Your task to perform on an android device: turn notification dots off Image 0: 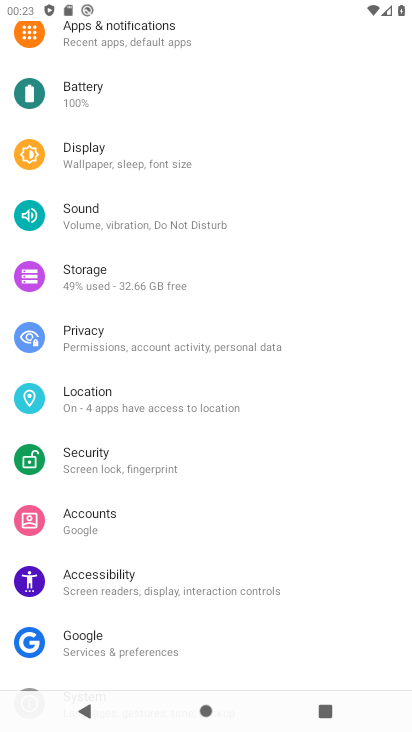
Step 0: drag from (208, 182) to (192, 586)
Your task to perform on an android device: turn notification dots off Image 1: 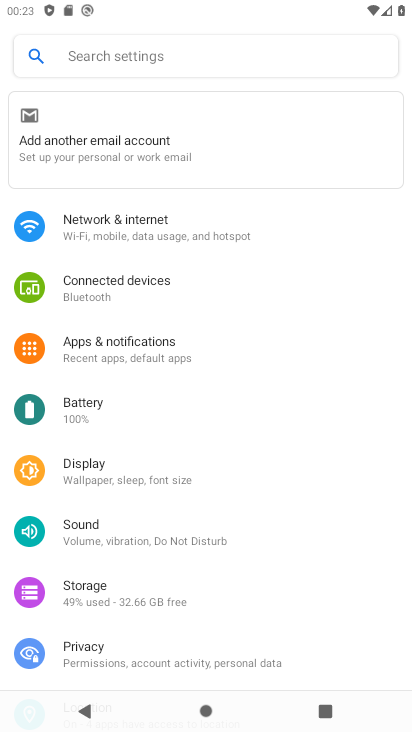
Step 1: click (136, 353)
Your task to perform on an android device: turn notification dots off Image 2: 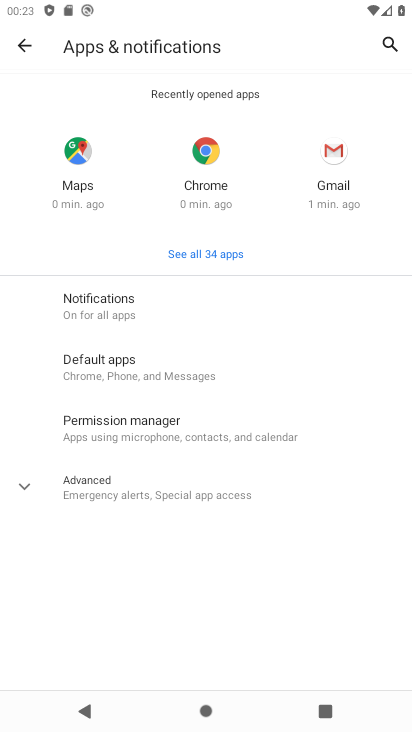
Step 2: click (181, 300)
Your task to perform on an android device: turn notification dots off Image 3: 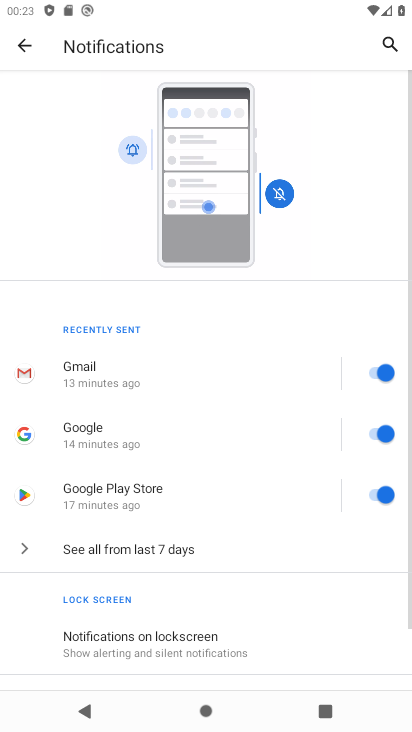
Step 3: drag from (138, 647) to (278, 3)
Your task to perform on an android device: turn notification dots off Image 4: 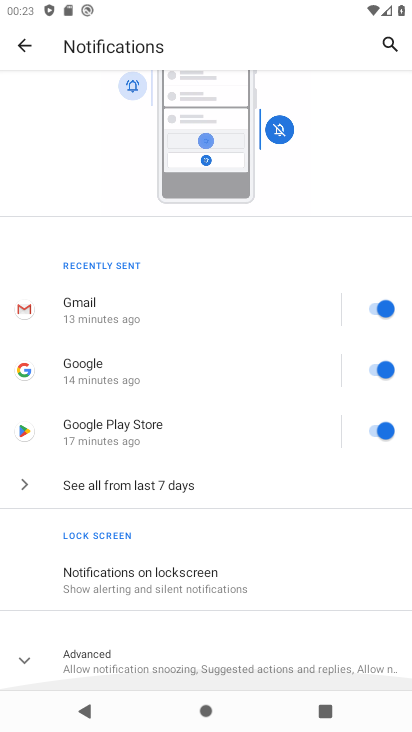
Step 4: click (94, 649)
Your task to perform on an android device: turn notification dots off Image 5: 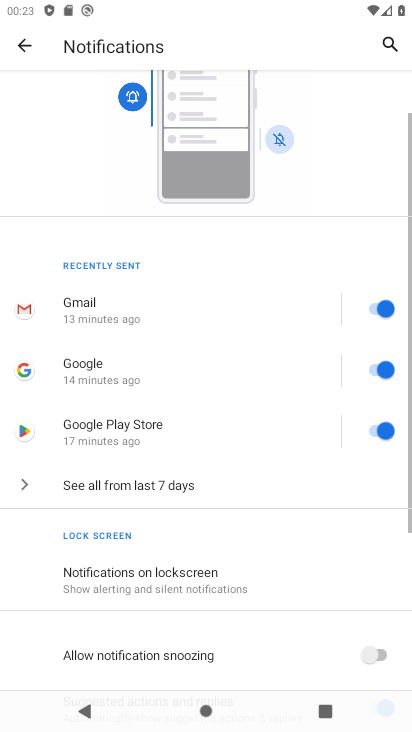
Step 5: task complete